Your task to perform on an android device: delete the emails in spam in the gmail app Image 0: 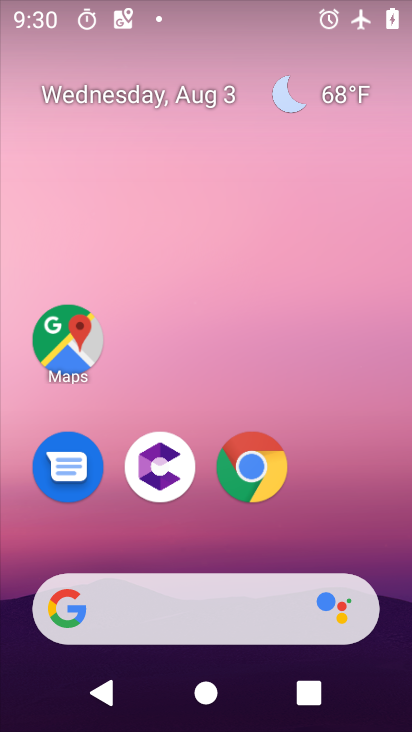
Step 0: drag from (319, 515) to (335, 141)
Your task to perform on an android device: delete the emails in spam in the gmail app Image 1: 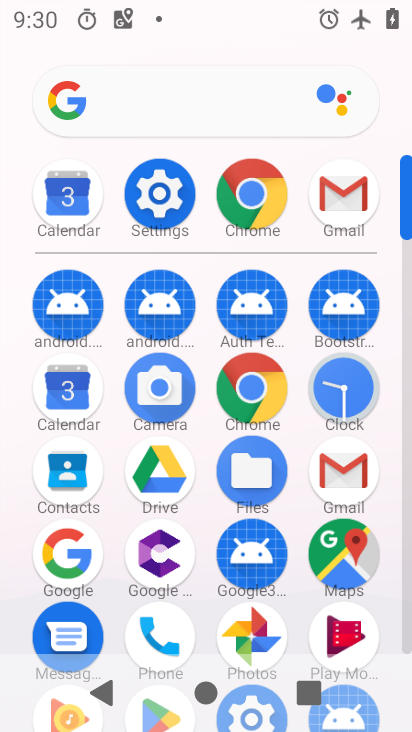
Step 1: click (355, 483)
Your task to perform on an android device: delete the emails in spam in the gmail app Image 2: 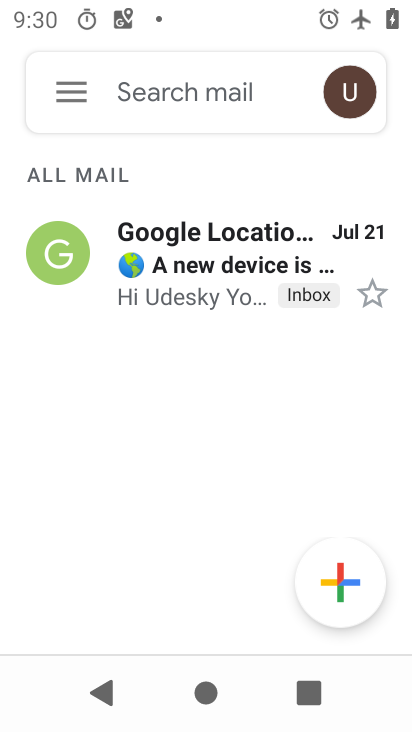
Step 2: click (78, 110)
Your task to perform on an android device: delete the emails in spam in the gmail app Image 3: 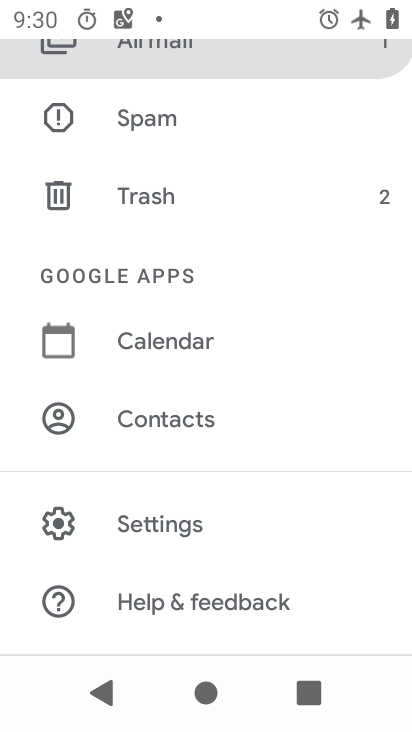
Step 3: click (148, 139)
Your task to perform on an android device: delete the emails in spam in the gmail app Image 4: 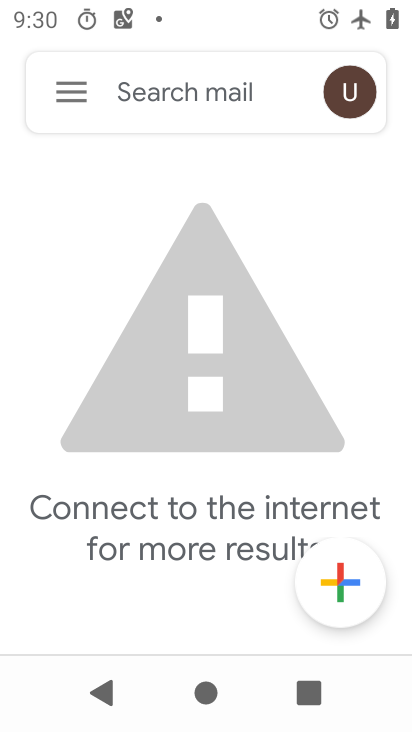
Step 4: task complete